Your task to perform on an android device: turn off translation in the chrome app Image 0: 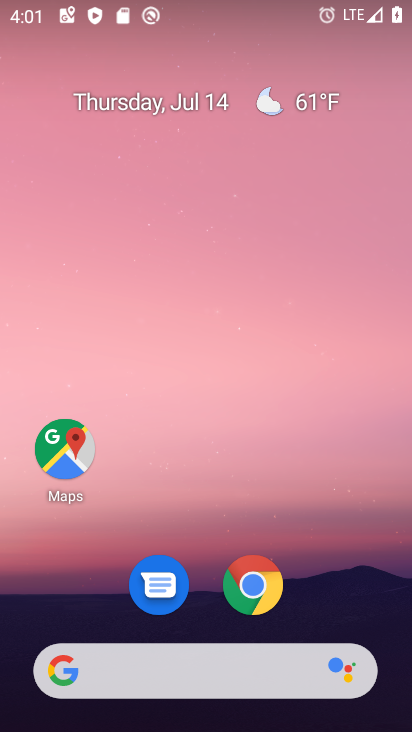
Step 0: drag from (203, 499) to (259, 107)
Your task to perform on an android device: turn off translation in the chrome app Image 1: 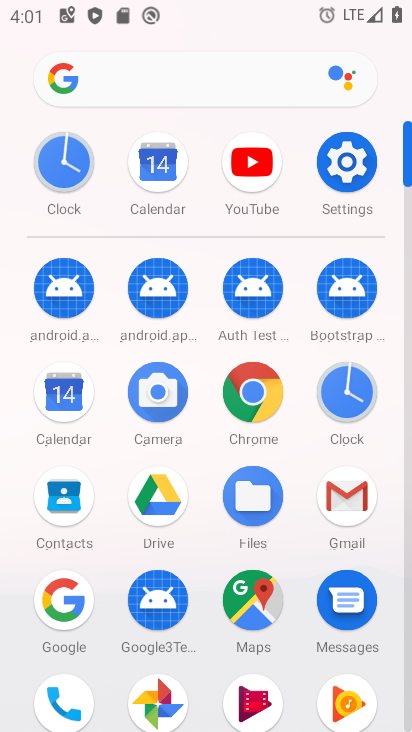
Step 1: click (255, 380)
Your task to perform on an android device: turn off translation in the chrome app Image 2: 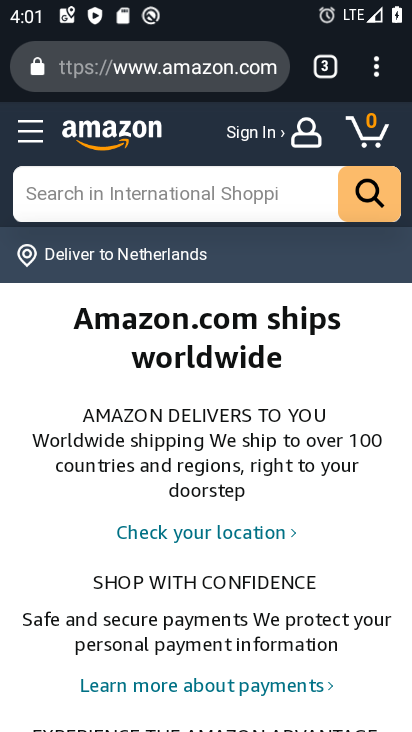
Step 2: click (371, 74)
Your task to perform on an android device: turn off translation in the chrome app Image 3: 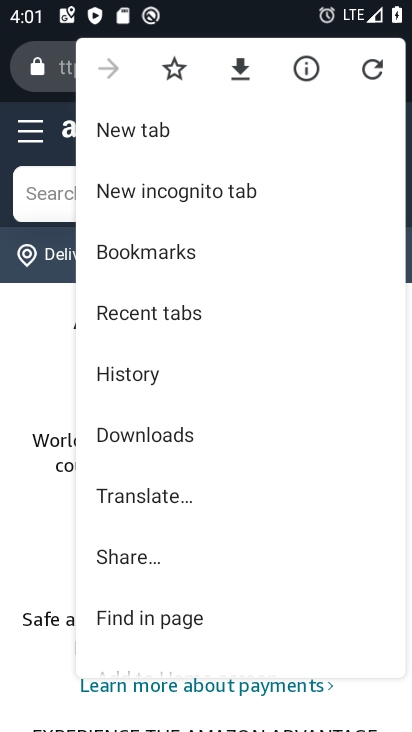
Step 3: drag from (225, 527) to (301, 222)
Your task to perform on an android device: turn off translation in the chrome app Image 4: 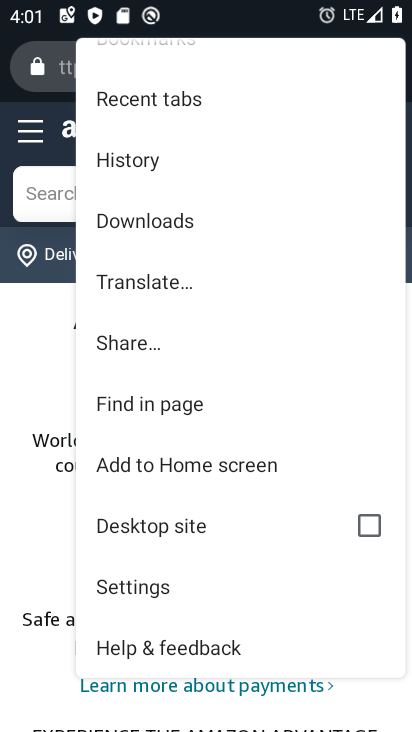
Step 4: click (165, 582)
Your task to perform on an android device: turn off translation in the chrome app Image 5: 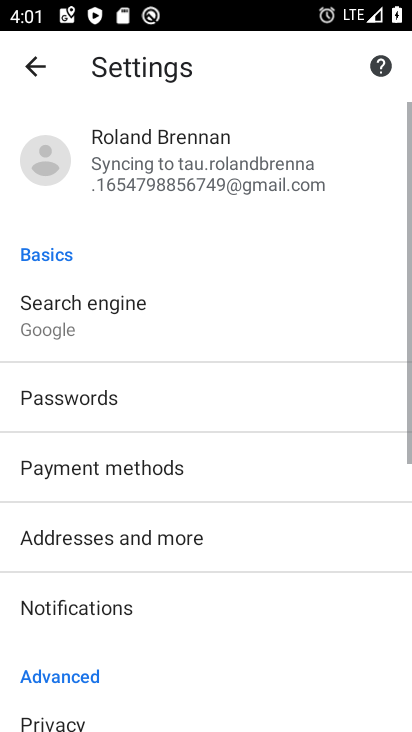
Step 5: drag from (221, 560) to (255, 72)
Your task to perform on an android device: turn off translation in the chrome app Image 6: 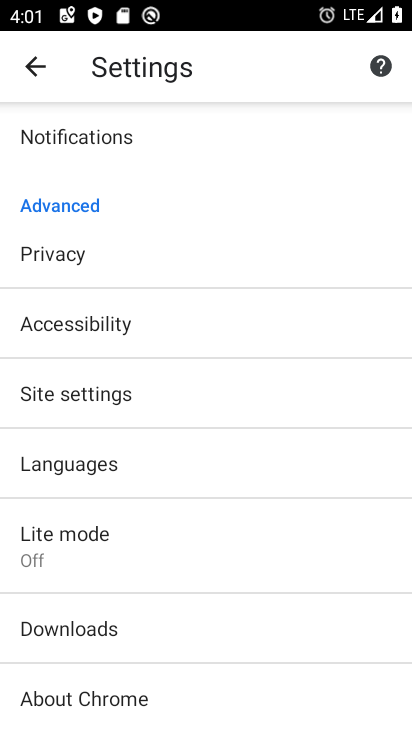
Step 6: click (154, 471)
Your task to perform on an android device: turn off translation in the chrome app Image 7: 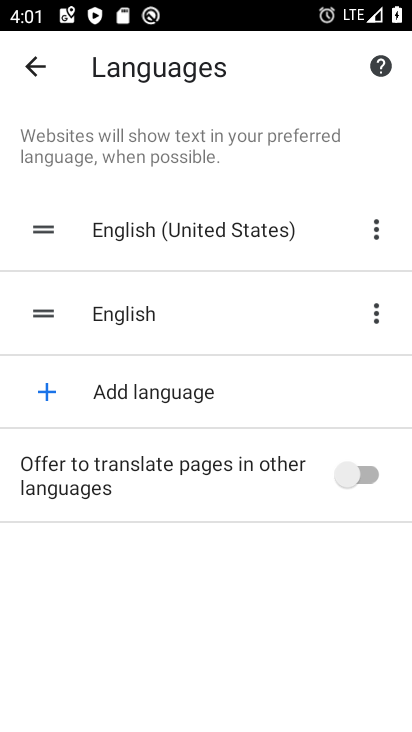
Step 7: task complete